Your task to perform on an android device: Open Chrome and go to settings Image 0: 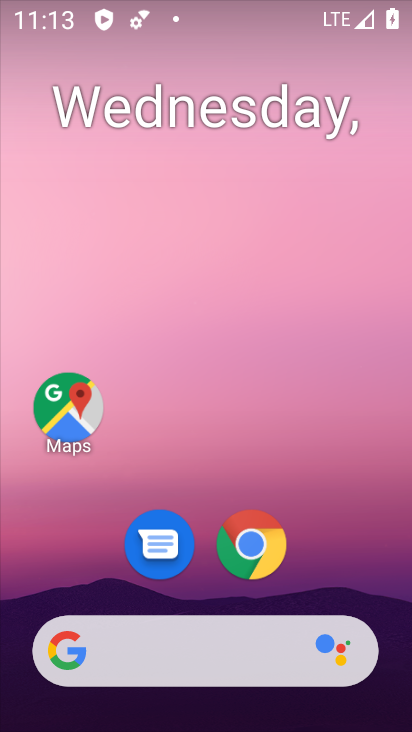
Step 0: click (244, 547)
Your task to perform on an android device: Open Chrome and go to settings Image 1: 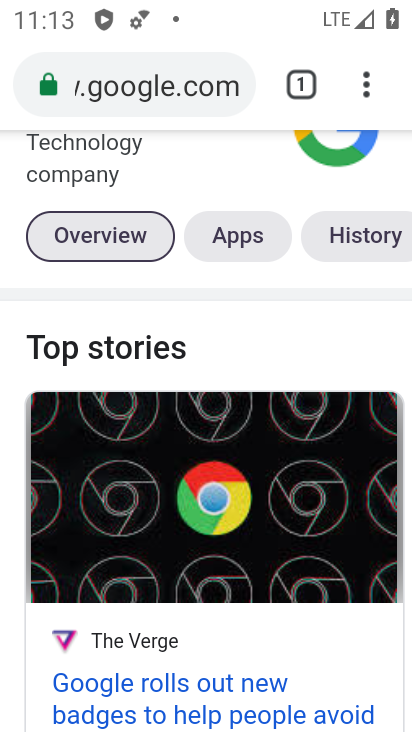
Step 1: click (366, 78)
Your task to perform on an android device: Open Chrome and go to settings Image 2: 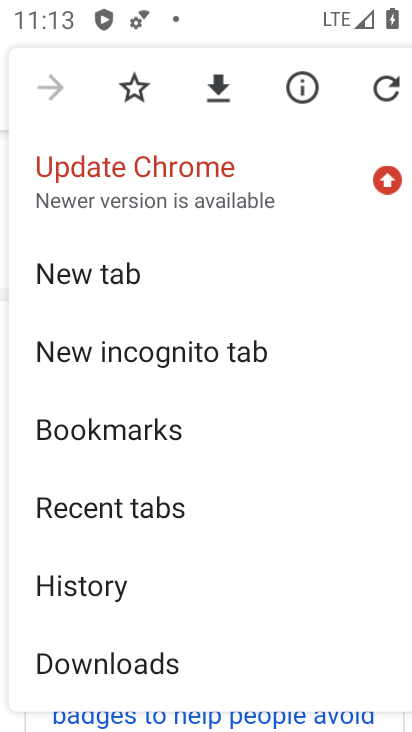
Step 2: drag from (179, 544) to (188, 230)
Your task to perform on an android device: Open Chrome and go to settings Image 3: 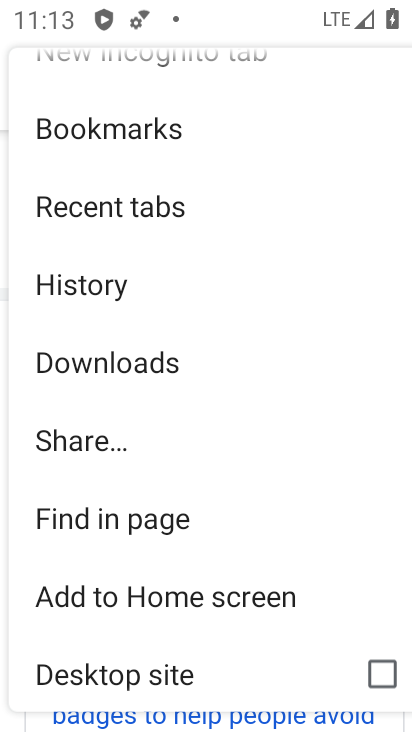
Step 3: drag from (169, 535) to (183, 266)
Your task to perform on an android device: Open Chrome and go to settings Image 4: 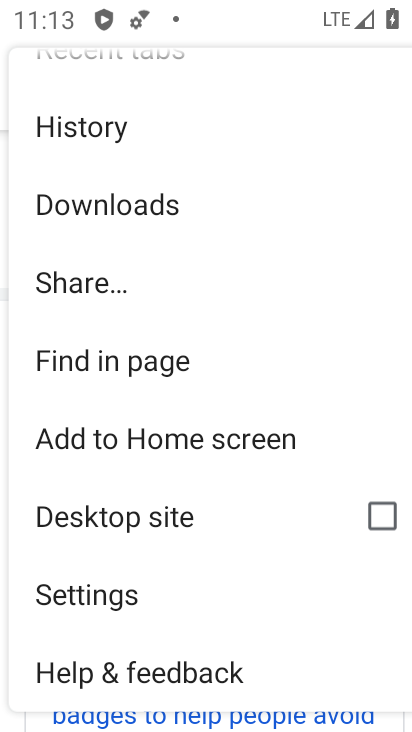
Step 4: click (130, 601)
Your task to perform on an android device: Open Chrome and go to settings Image 5: 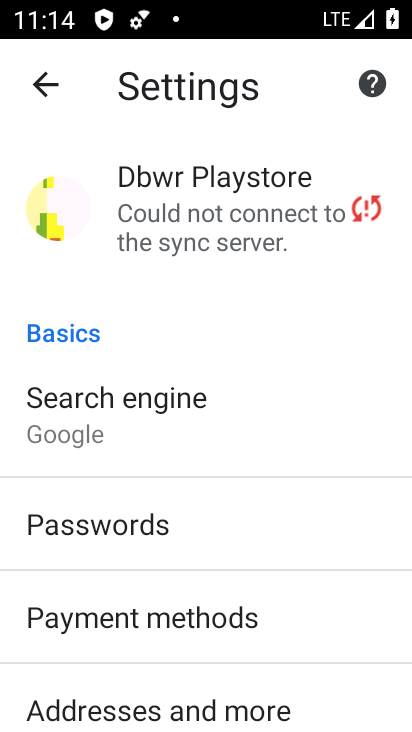
Step 5: task complete